Your task to perform on an android device: Open Google Chrome and click the shortcut for Amazon.com Image 0: 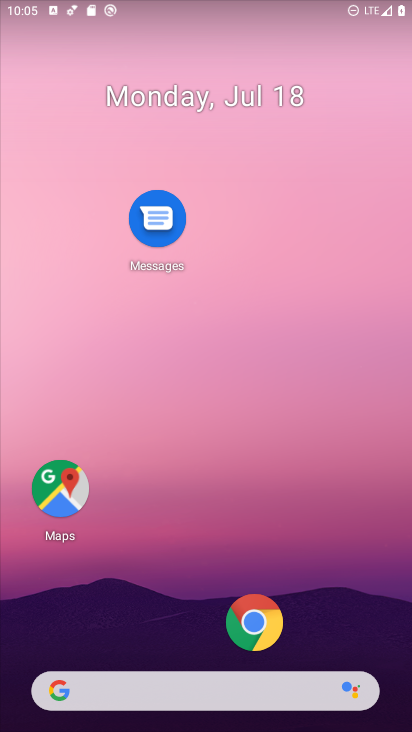
Step 0: drag from (251, 682) to (288, 129)
Your task to perform on an android device: Open Google Chrome and click the shortcut for Amazon.com Image 1: 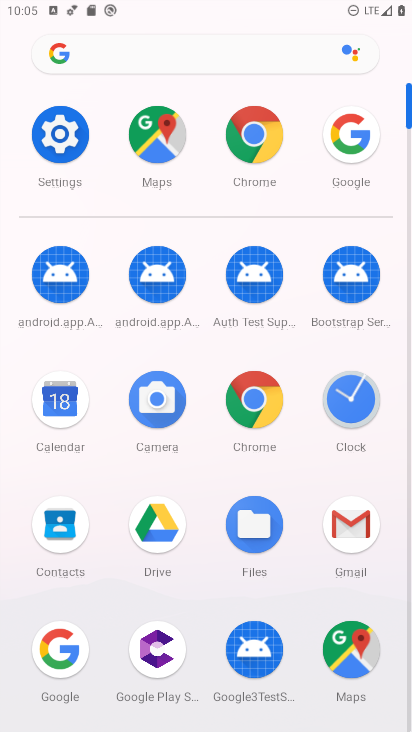
Step 1: drag from (250, 525) to (252, 199)
Your task to perform on an android device: Open Google Chrome and click the shortcut for Amazon.com Image 2: 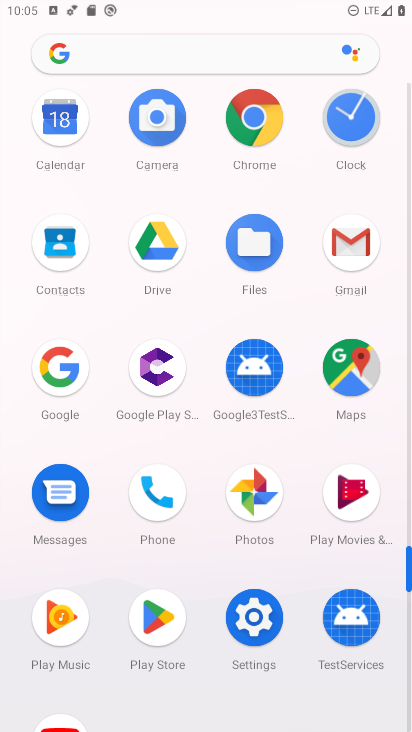
Step 2: drag from (212, 548) to (247, 275)
Your task to perform on an android device: Open Google Chrome and click the shortcut for Amazon.com Image 3: 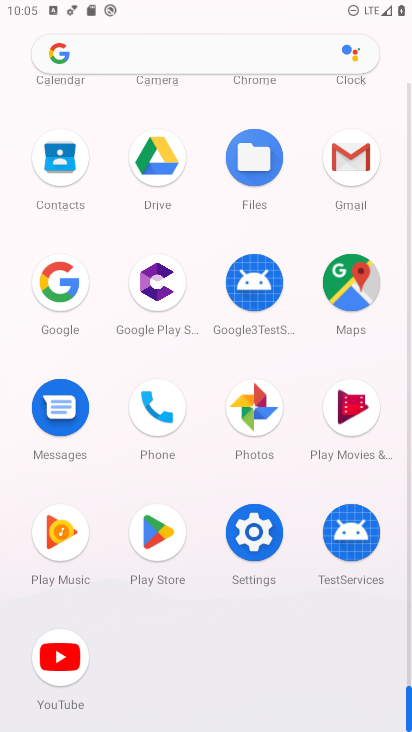
Step 3: drag from (198, 402) to (224, 700)
Your task to perform on an android device: Open Google Chrome and click the shortcut for Amazon.com Image 4: 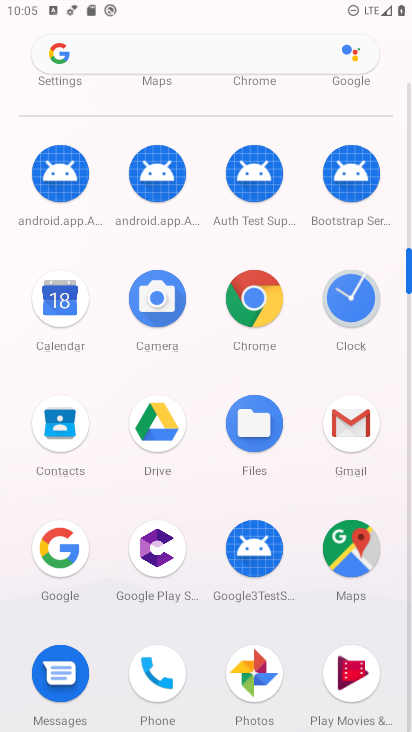
Step 4: click (258, 308)
Your task to perform on an android device: Open Google Chrome and click the shortcut for Amazon.com Image 5: 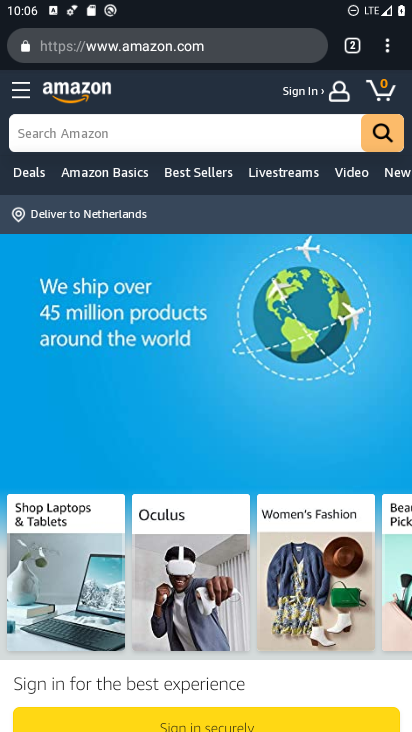
Step 5: drag from (350, 51) to (340, 293)
Your task to perform on an android device: Open Google Chrome and click the shortcut for Amazon.com Image 6: 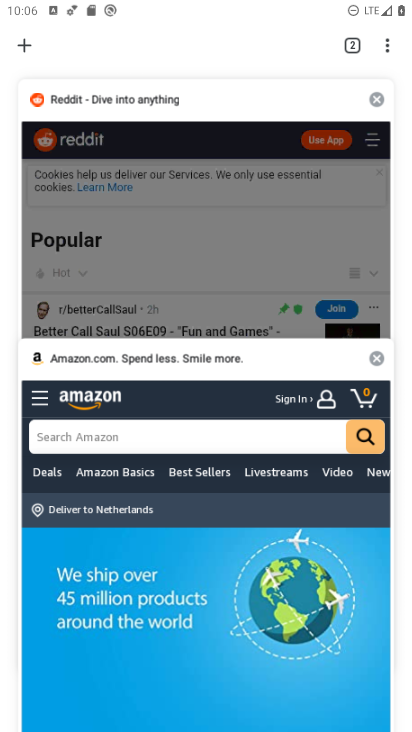
Step 6: click (24, 50)
Your task to perform on an android device: Open Google Chrome and click the shortcut for Amazon.com Image 7: 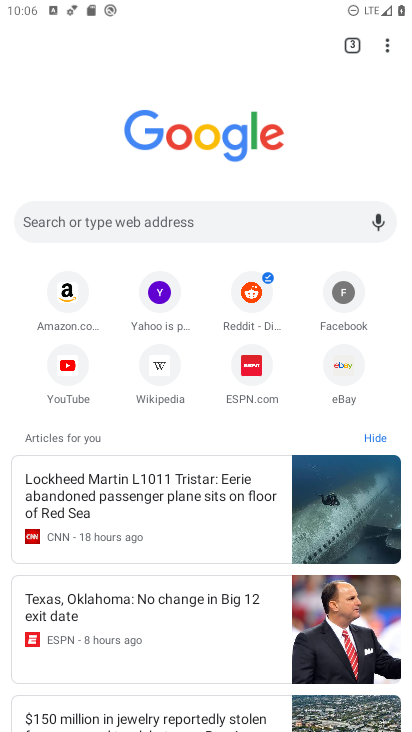
Step 7: click (57, 294)
Your task to perform on an android device: Open Google Chrome and click the shortcut for Amazon.com Image 8: 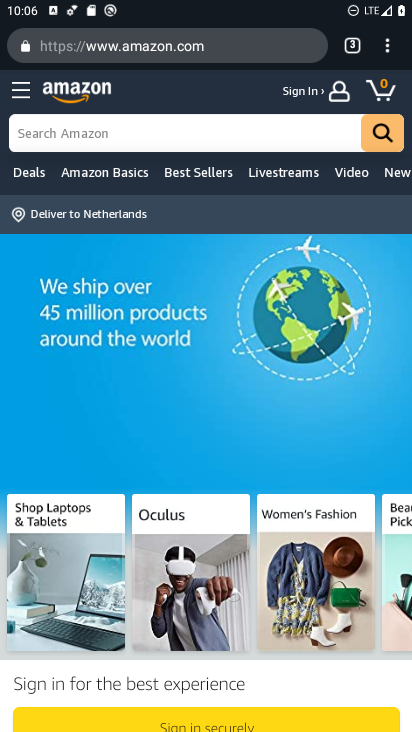
Step 8: task complete